Your task to perform on an android device: set the timer Image 0: 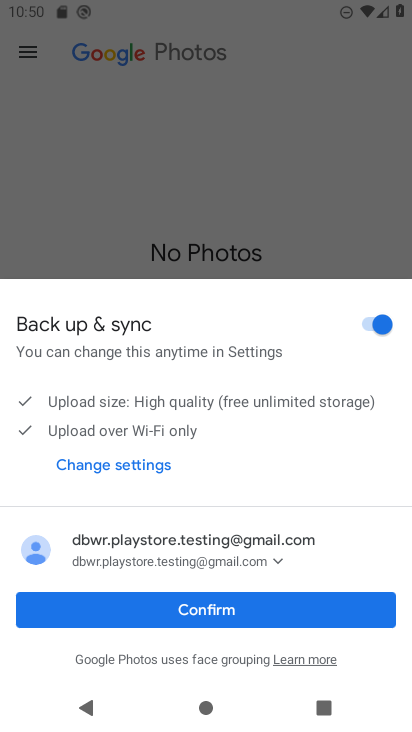
Step 0: press home button
Your task to perform on an android device: set the timer Image 1: 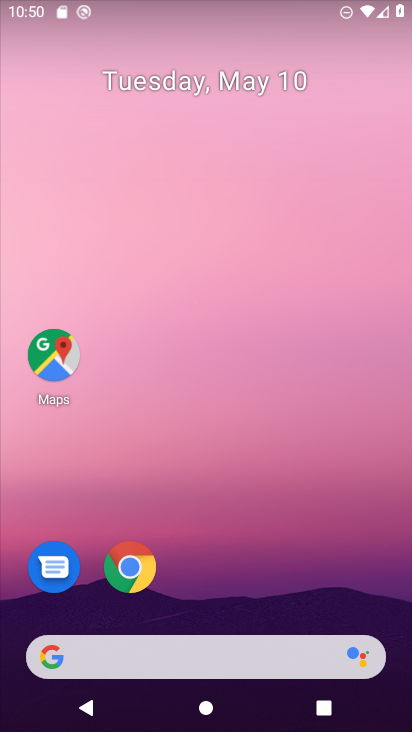
Step 1: drag from (309, 496) to (311, 103)
Your task to perform on an android device: set the timer Image 2: 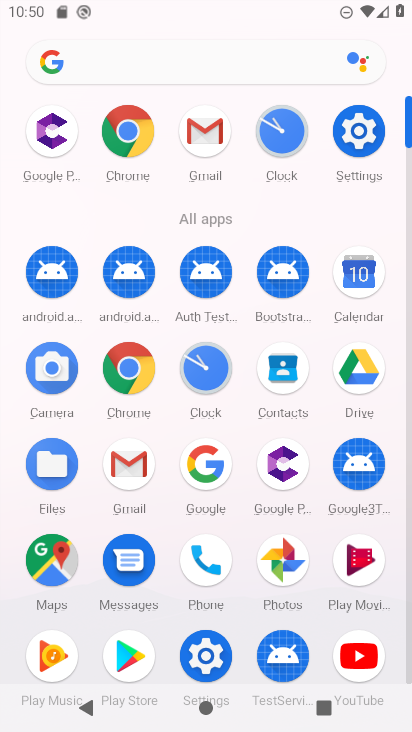
Step 2: click (206, 376)
Your task to perform on an android device: set the timer Image 3: 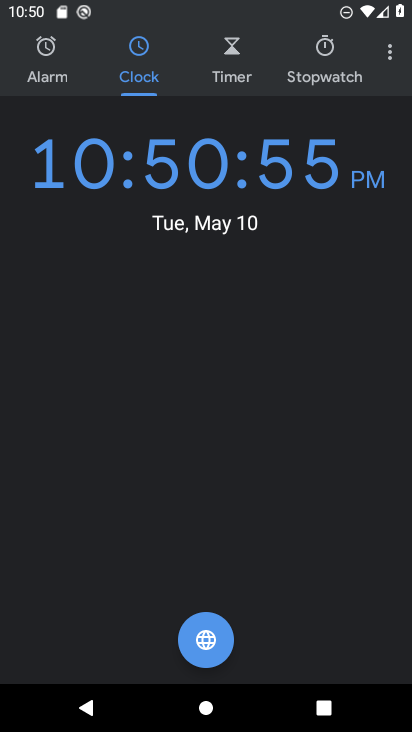
Step 3: click (244, 82)
Your task to perform on an android device: set the timer Image 4: 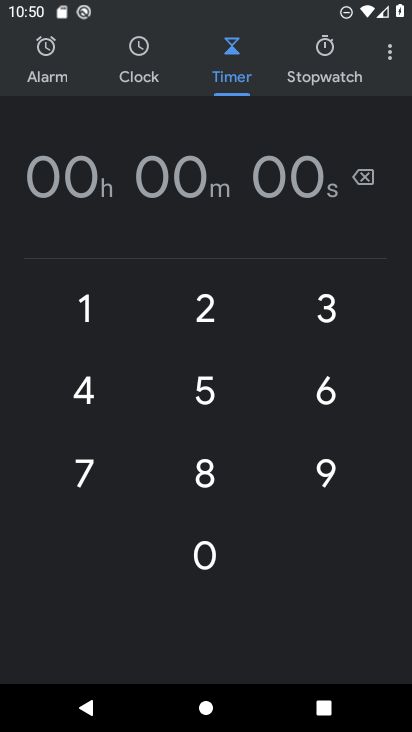
Step 4: click (200, 479)
Your task to perform on an android device: set the timer Image 5: 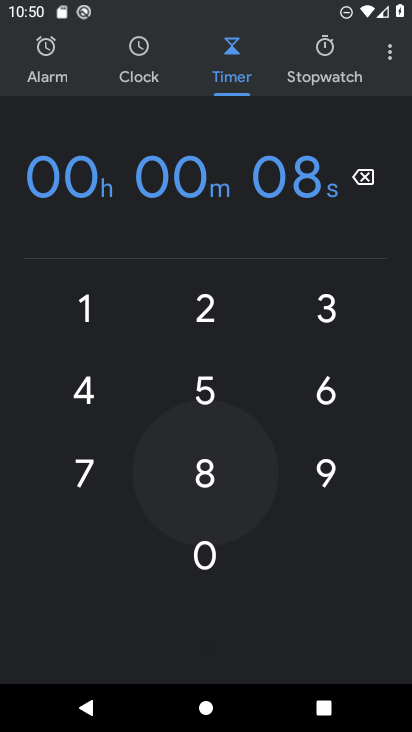
Step 5: click (200, 414)
Your task to perform on an android device: set the timer Image 6: 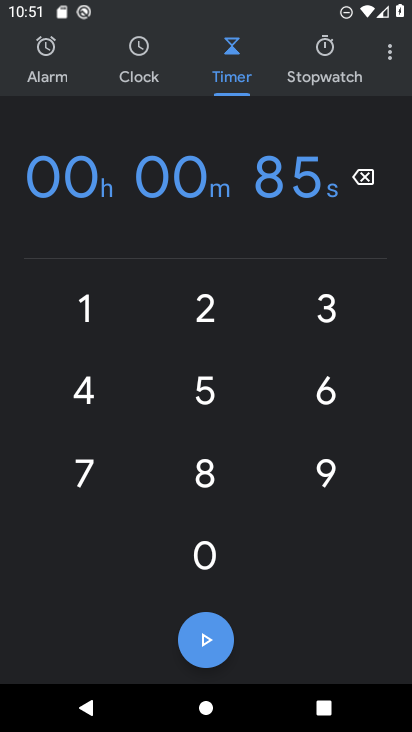
Step 6: click (228, 634)
Your task to perform on an android device: set the timer Image 7: 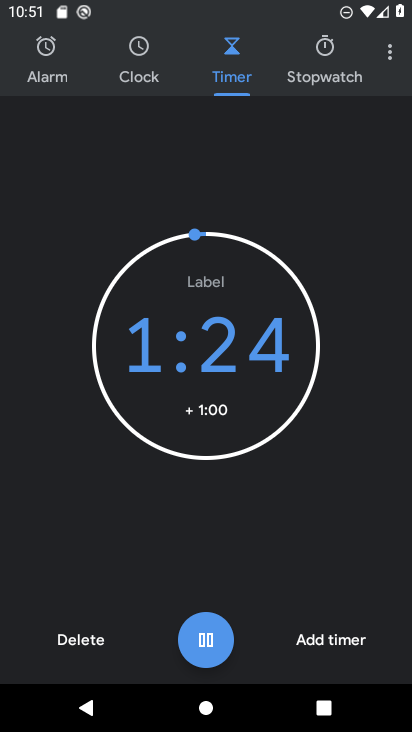
Step 7: task complete